Your task to perform on an android device: Open calendar and show me the first week of next month Image 0: 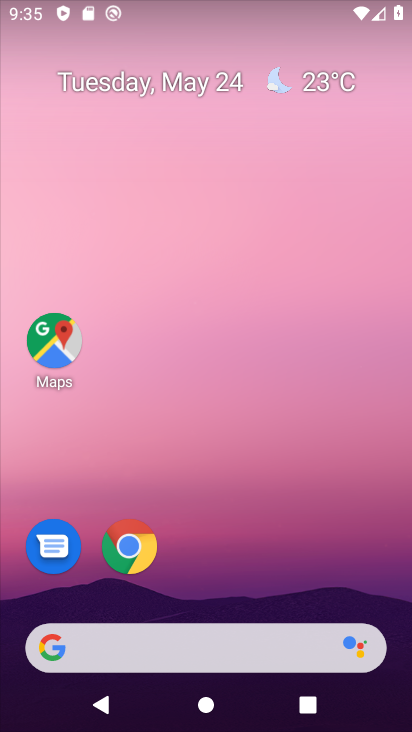
Step 0: drag from (259, 550) to (263, 85)
Your task to perform on an android device: Open calendar and show me the first week of next month Image 1: 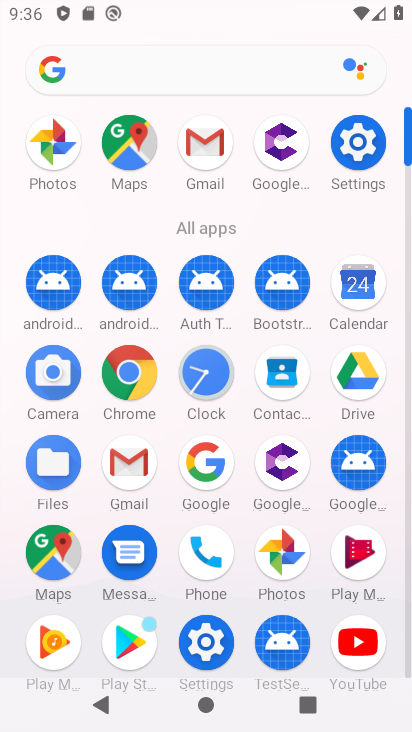
Step 1: click (357, 290)
Your task to perform on an android device: Open calendar and show me the first week of next month Image 2: 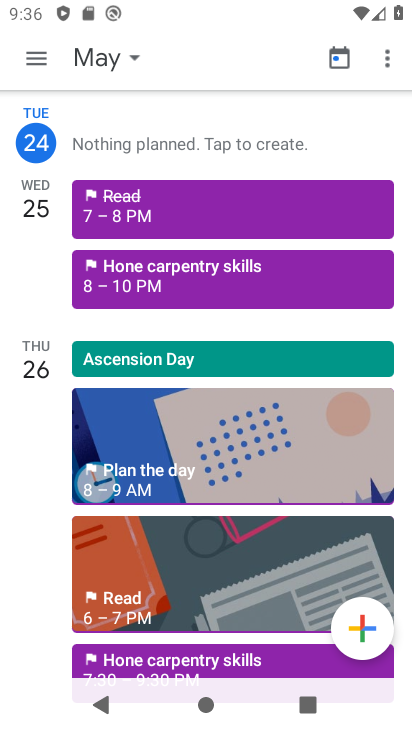
Step 2: click (123, 59)
Your task to perform on an android device: Open calendar and show me the first week of next month Image 3: 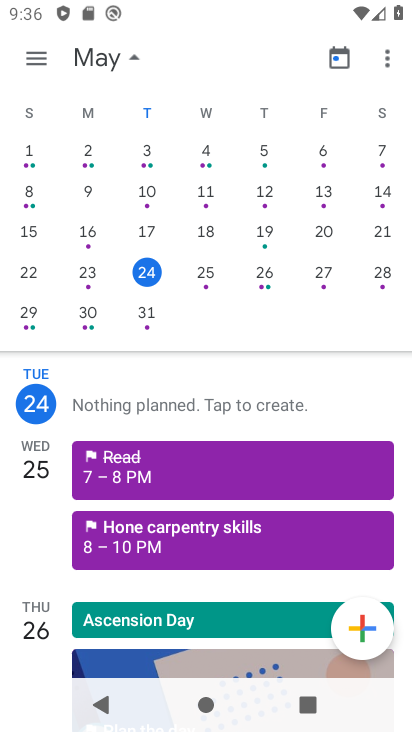
Step 3: drag from (378, 325) to (51, 315)
Your task to perform on an android device: Open calendar and show me the first week of next month Image 4: 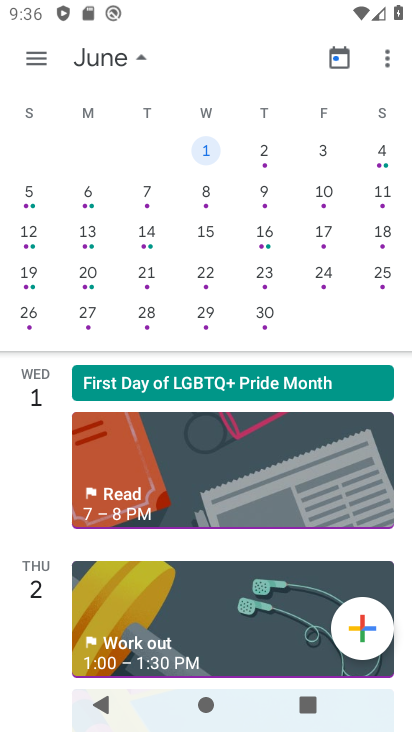
Step 4: click (318, 157)
Your task to perform on an android device: Open calendar and show me the first week of next month Image 5: 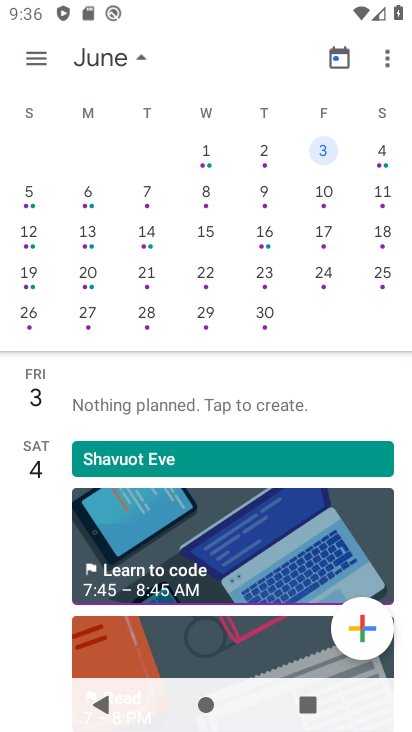
Step 5: task complete